Your task to perform on an android device: show emergency info Image 0: 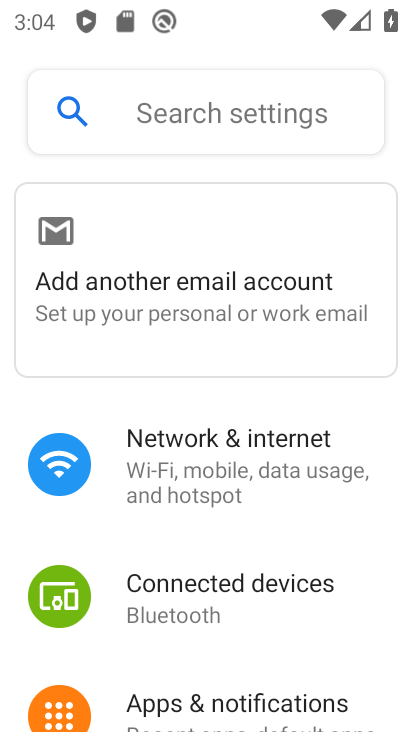
Step 0: drag from (278, 559) to (139, 238)
Your task to perform on an android device: show emergency info Image 1: 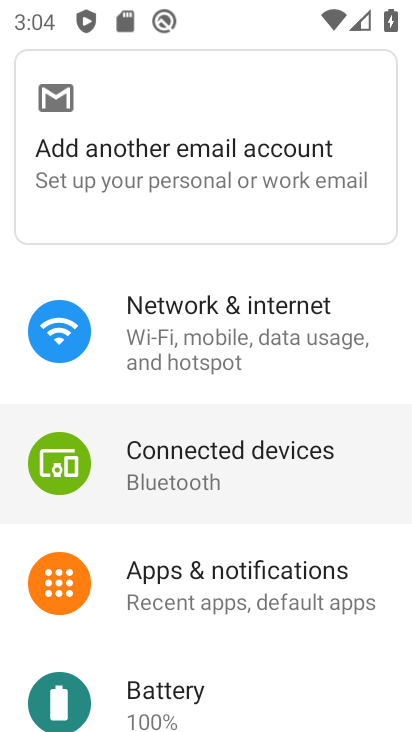
Step 1: drag from (216, 407) to (173, 205)
Your task to perform on an android device: show emergency info Image 2: 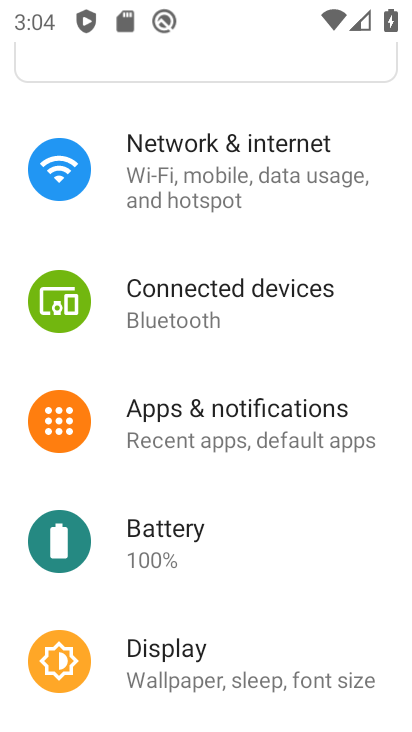
Step 2: drag from (247, 403) to (205, 166)
Your task to perform on an android device: show emergency info Image 3: 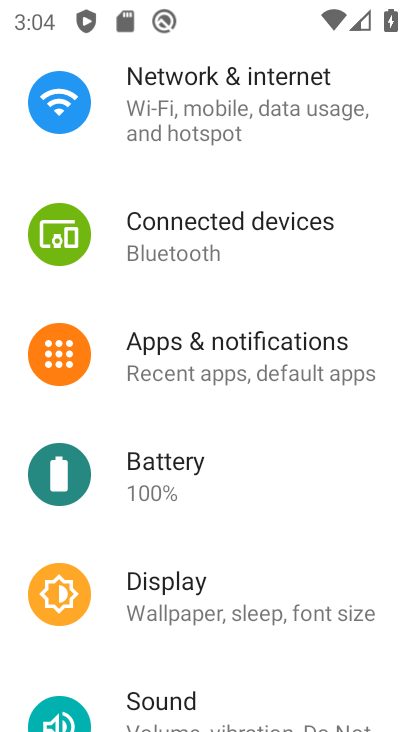
Step 3: drag from (239, 438) to (234, 197)
Your task to perform on an android device: show emergency info Image 4: 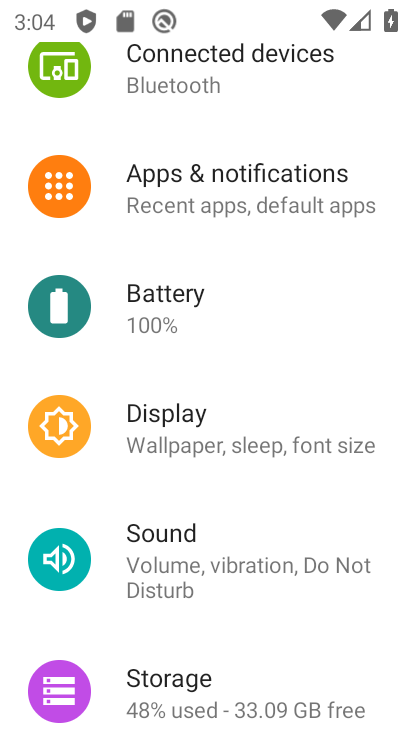
Step 4: drag from (282, 384) to (292, 118)
Your task to perform on an android device: show emergency info Image 5: 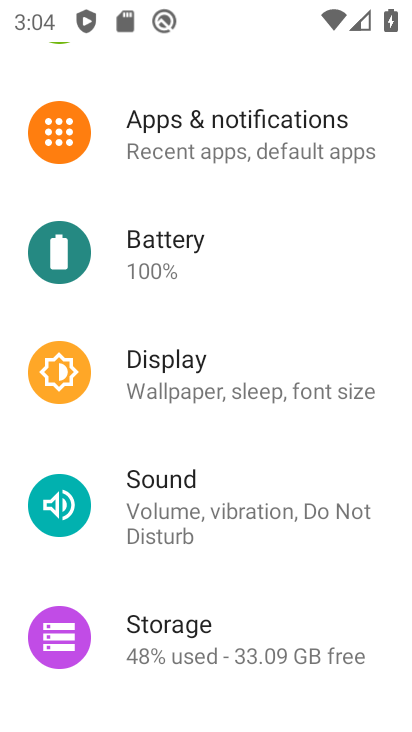
Step 5: drag from (292, 296) to (255, 67)
Your task to perform on an android device: show emergency info Image 6: 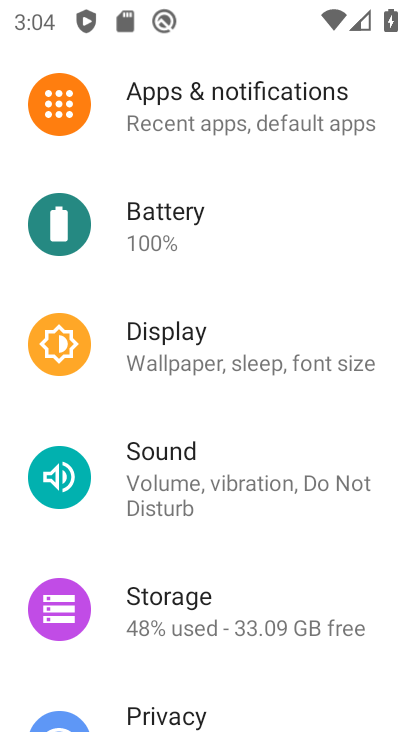
Step 6: drag from (294, 392) to (250, 191)
Your task to perform on an android device: show emergency info Image 7: 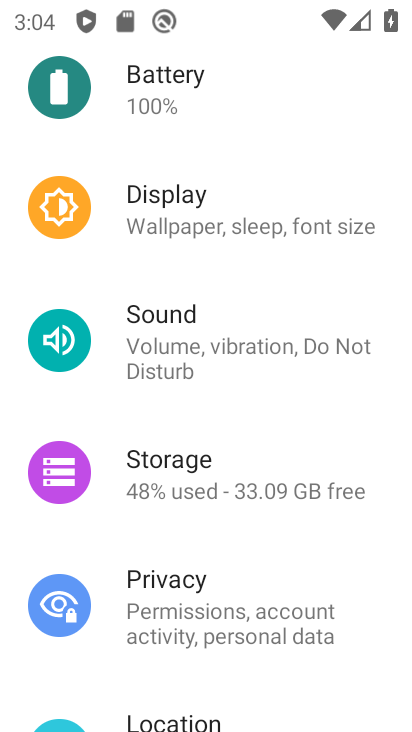
Step 7: drag from (188, 588) to (188, 315)
Your task to perform on an android device: show emergency info Image 8: 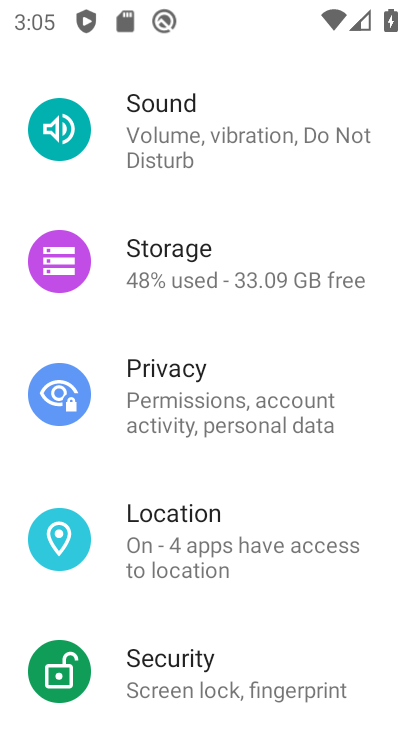
Step 8: drag from (204, 523) to (159, 161)
Your task to perform on an android device: show emergency info Image 9: 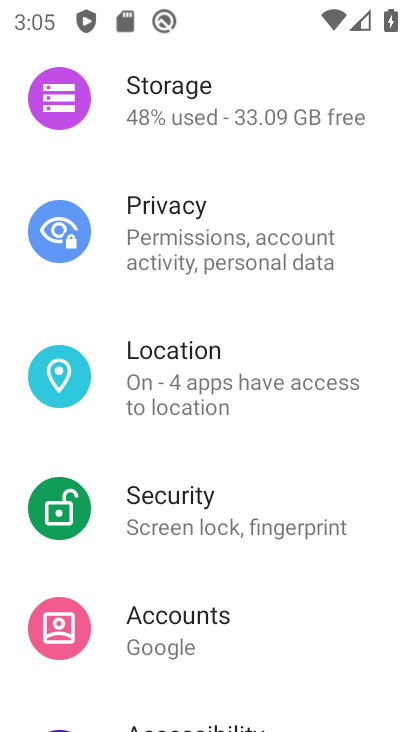
Step 9: drag from (212, 409) to (189, 180)
Your task to perform on an android device: show emergency info Image 10: 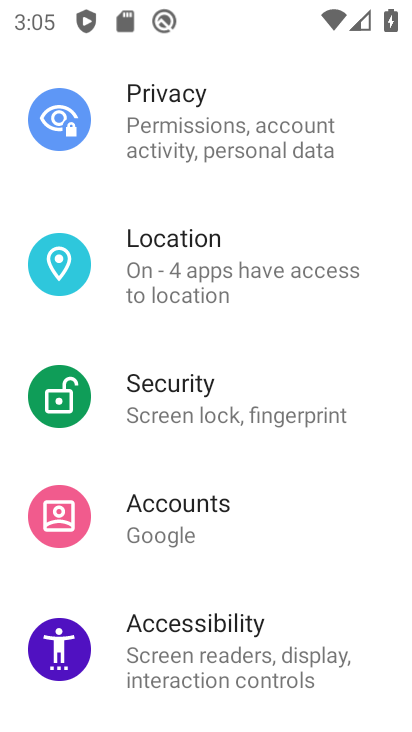
Step 10: drag from (212, 300) to (212, 161)
Your task to perform on an android device: show emergency info Image 11: 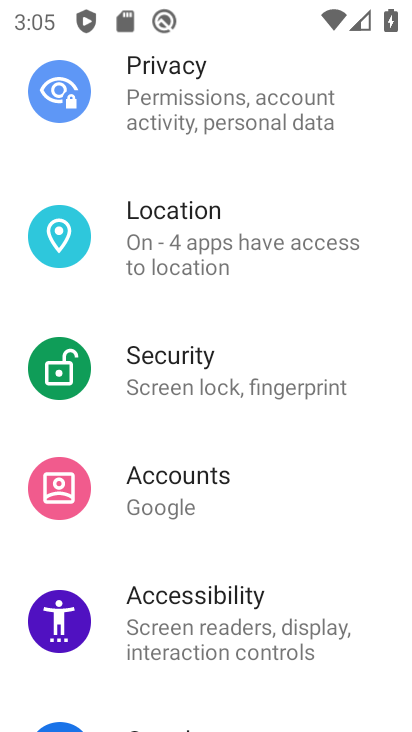
Step 11: drag from (196, 503) to (163, 287)
Your task to perform on an android device: show emergency info Image 12: 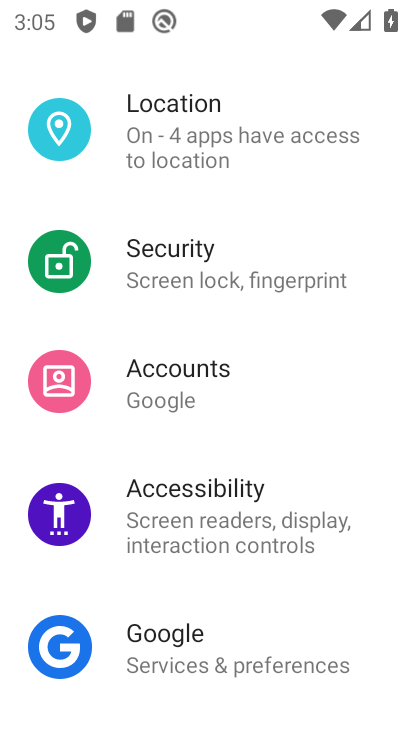
Step 12: drag from (226, 530) to (195, 229)
Your task to perform on an android device: show emergency info Image 13: 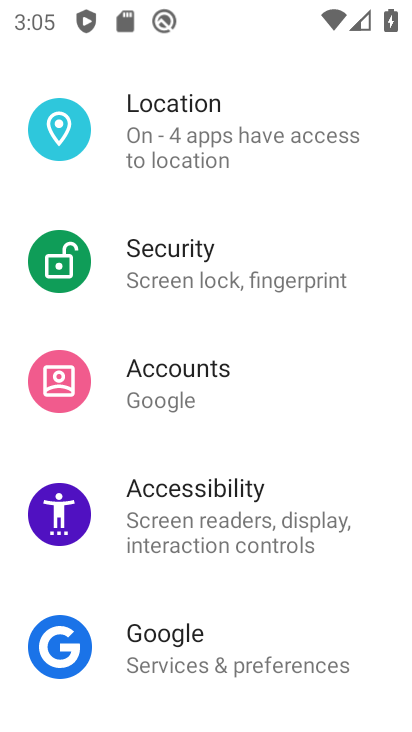
Step 13: drag from (182, 553) to (113, 138)
Your task to perform on an android device: show emergency info Image 14: 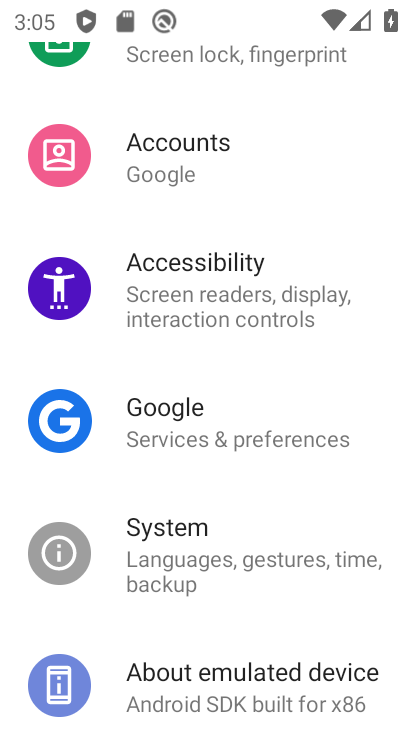
Step 14: drag from (201, 577) to (156, 233)
Your task to perform on an android device: show emergency info Image 15: 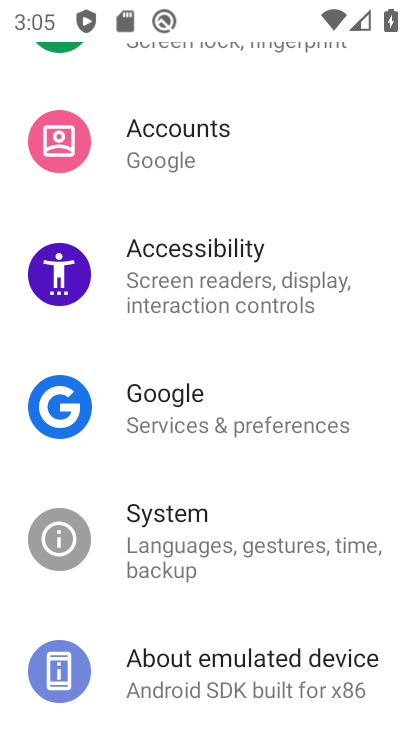
Step 15: click (212, 665)
Your task to perform on an android device: show emergency info Image 16: 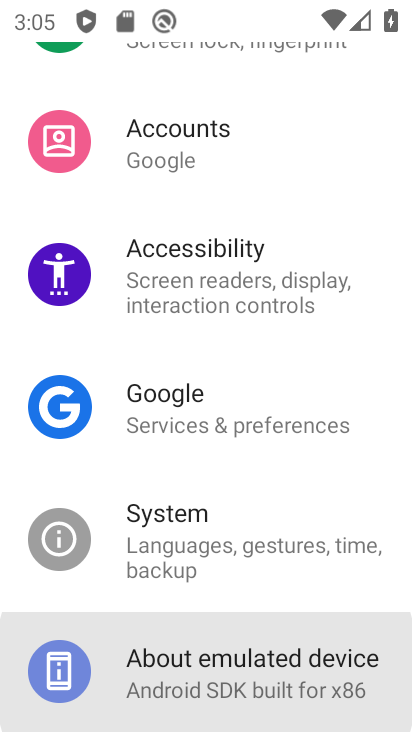
Step 16: click (216, 660)
Your task to perform on an android device: show emergency info Image 17: 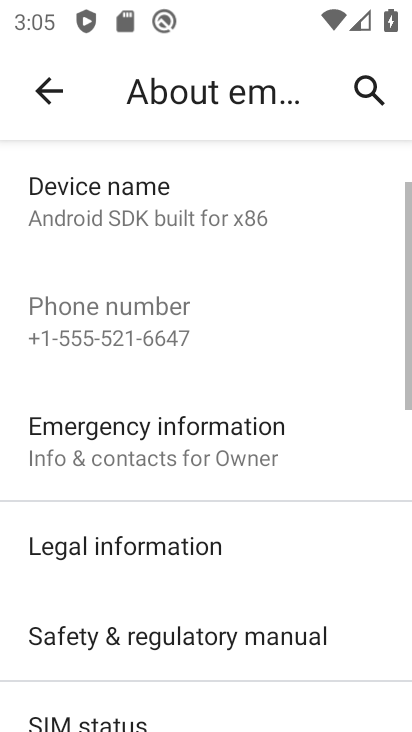
Step 17: task complete